Your task to perform on an android device: empty trash in the gmail app Image 0: 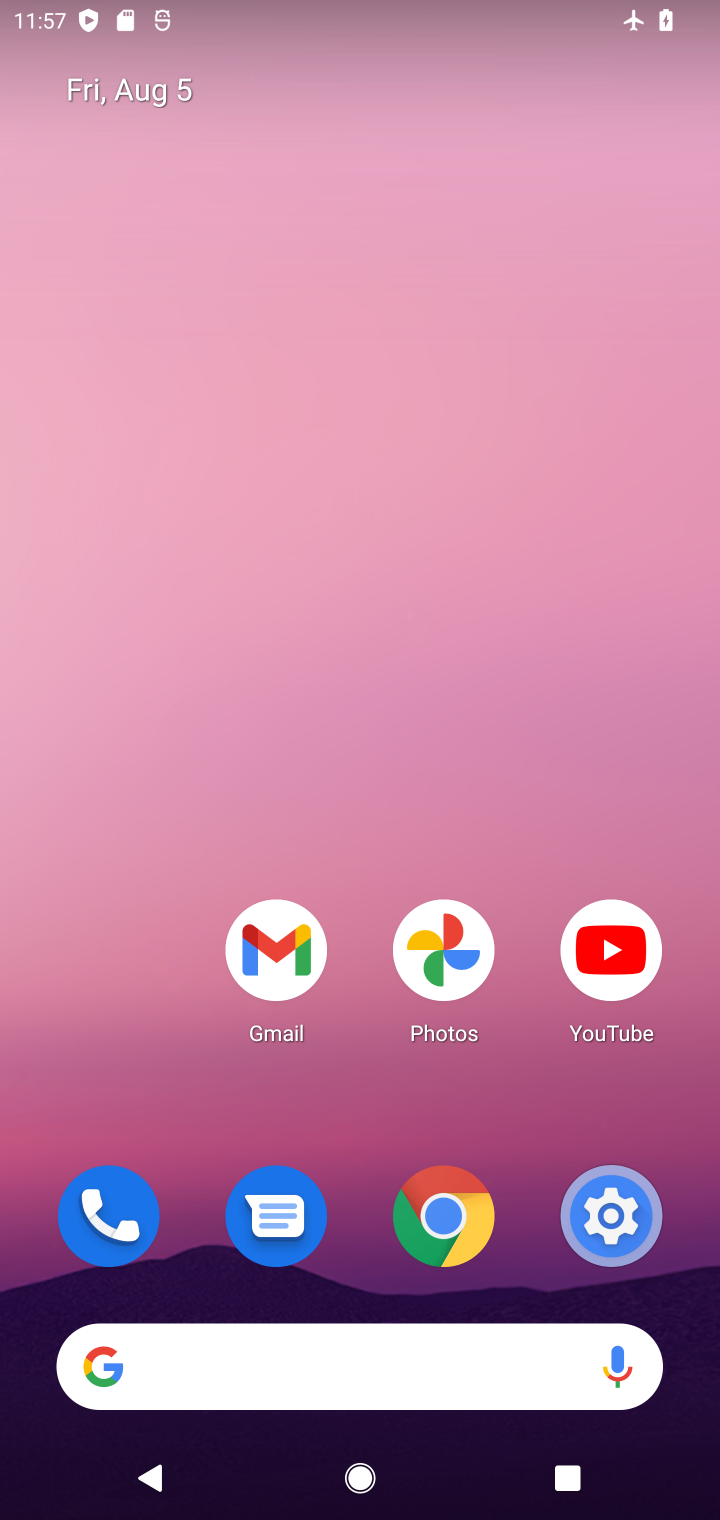
Step 0: drag from (424, 1388) to (436, 37)
Your task to perform on an android device: empty trash in the gmail app Image 1: 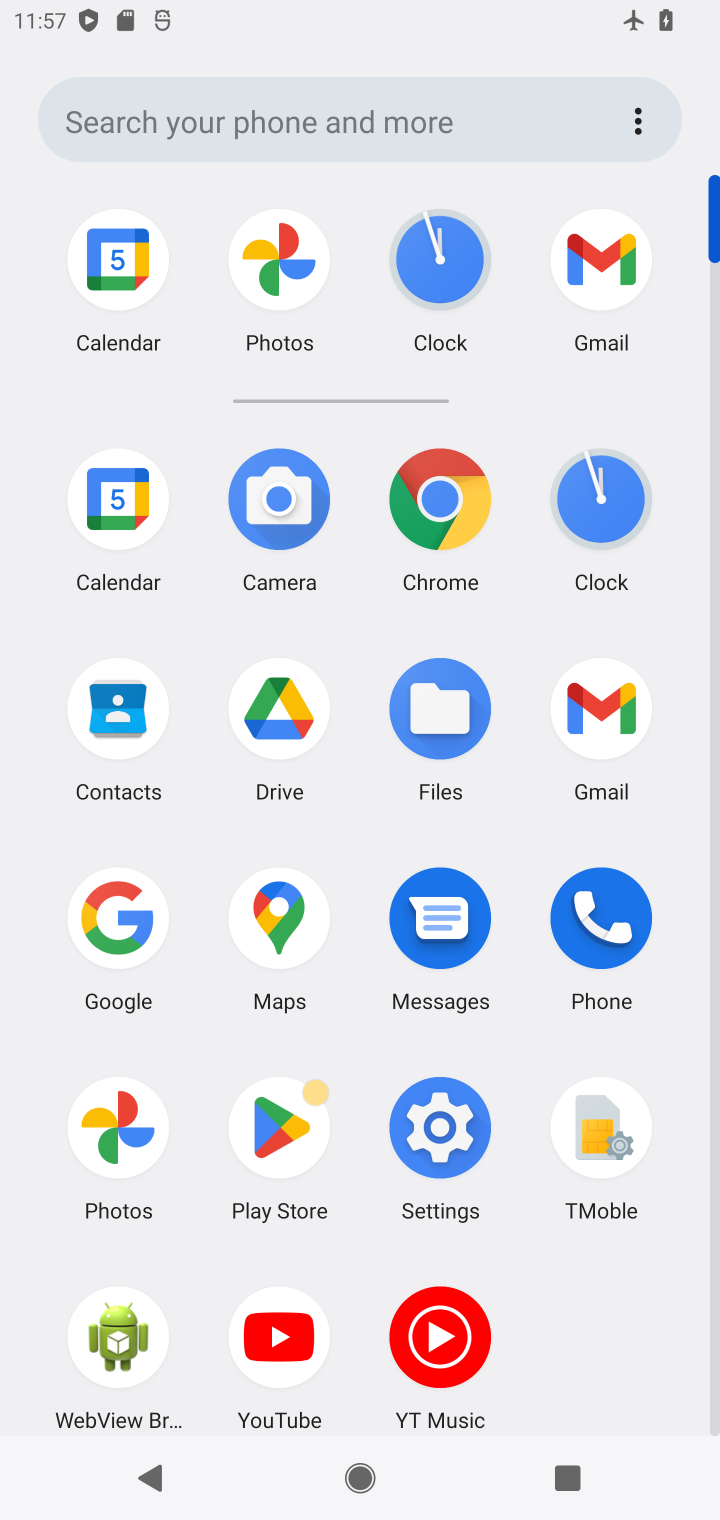
Step 1: click (605, 724)
Your task to perform on an android device: empty trash in the gmail app Image 2: 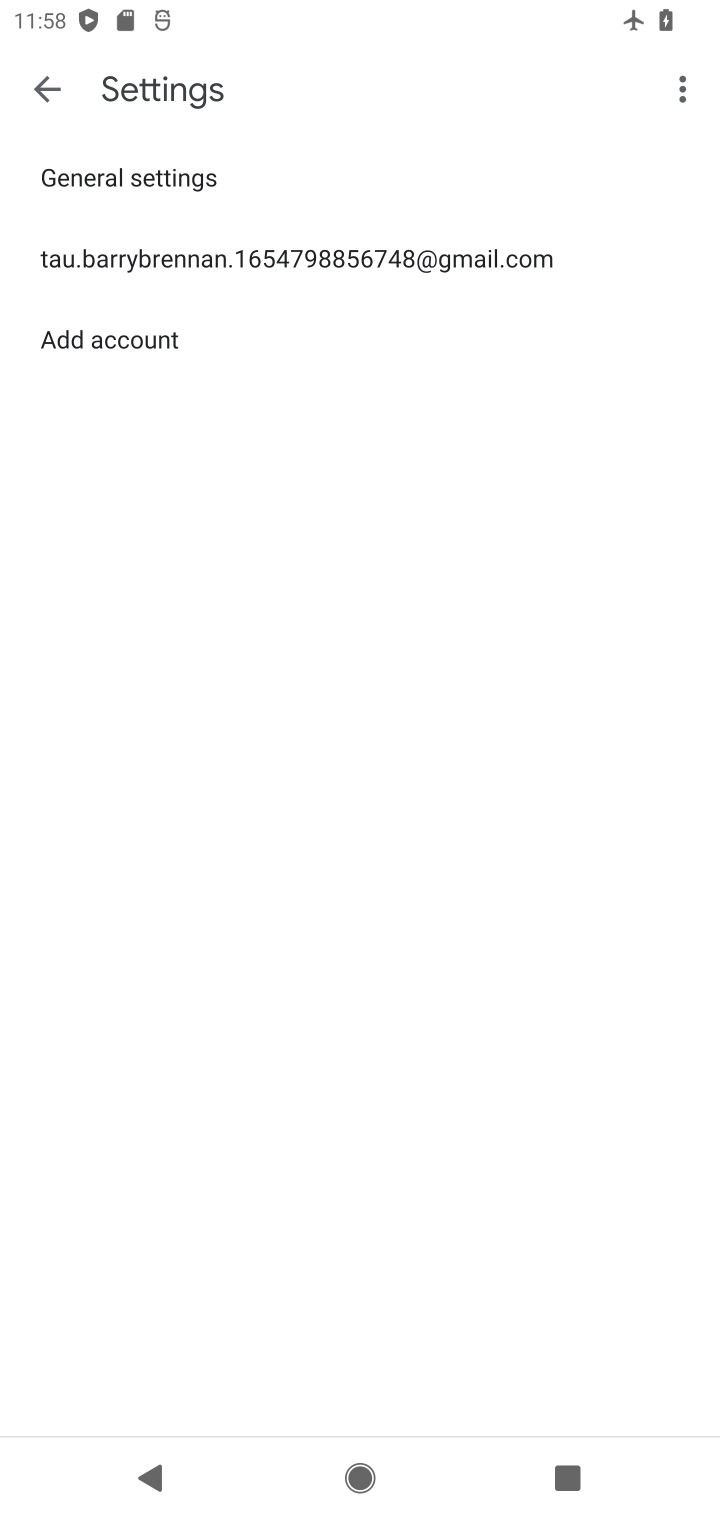
Step 2: press back button
Your task to perform on an android device: empty trash in the gmail app Image 3: 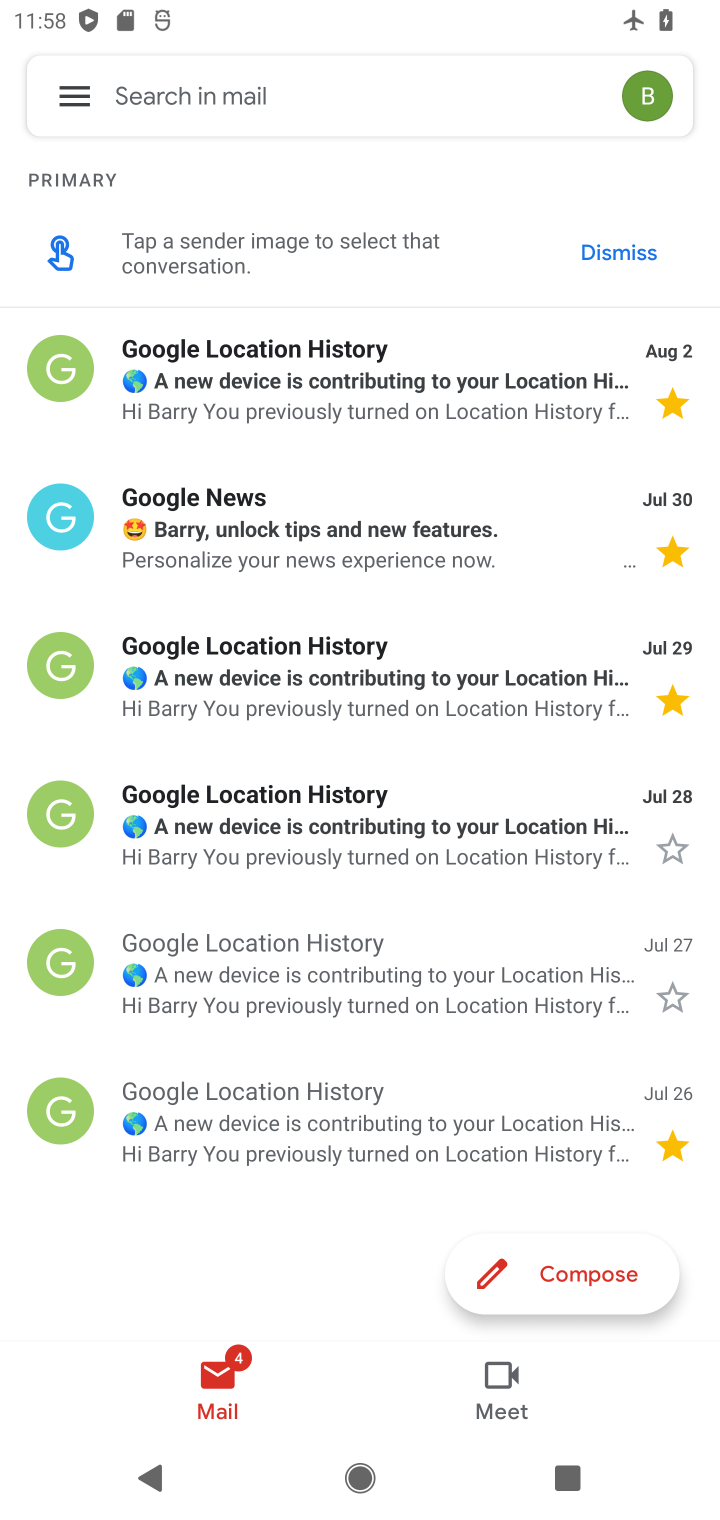
Step 3: click (77, 91)
Your task to perform on an android device: empty trash in the gmail app Image 4: 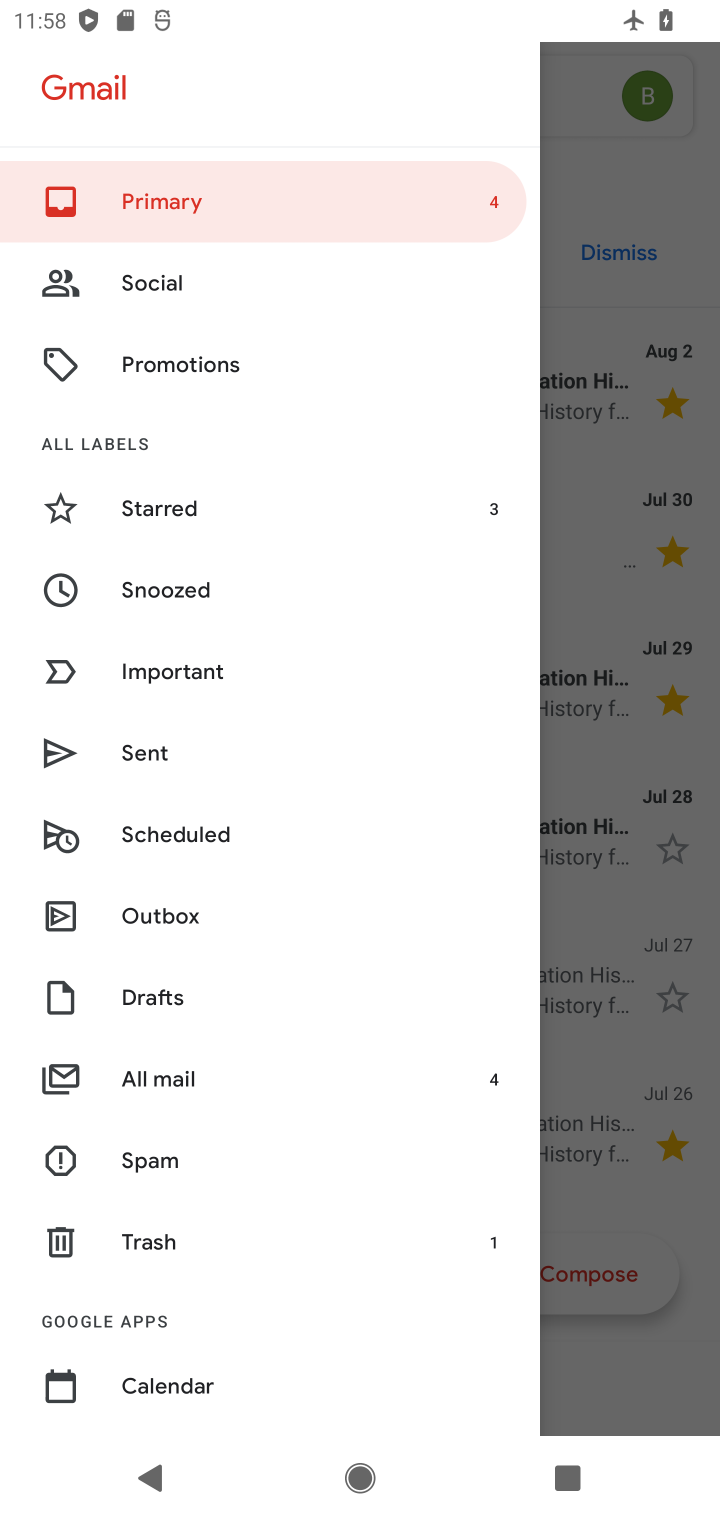
Step 4: click (168, 1227)
Your task to perform on an android device: empty trash in the gmail app Image 5: 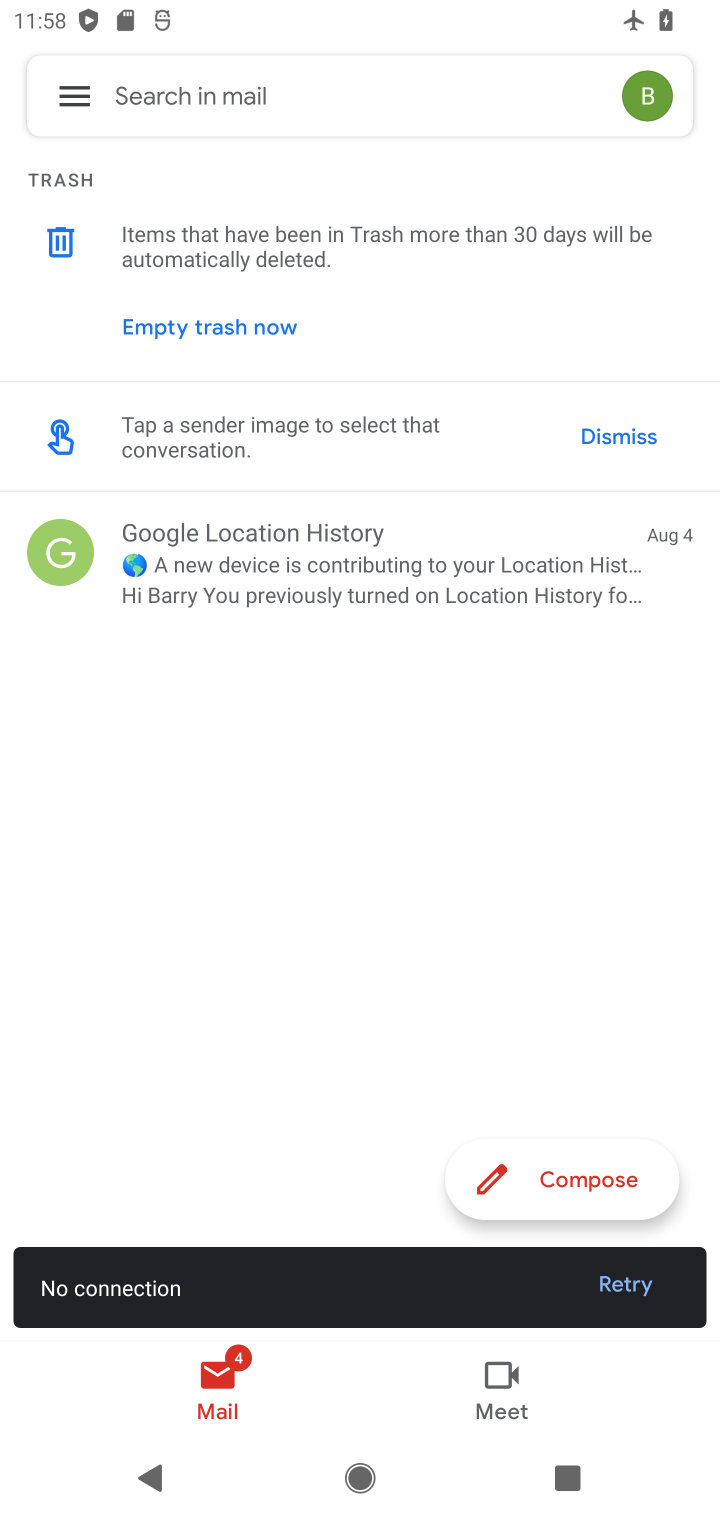
Step 5: click (260, 312)
Your task to perform on an android device: empty trash in the gmail app Image 6: 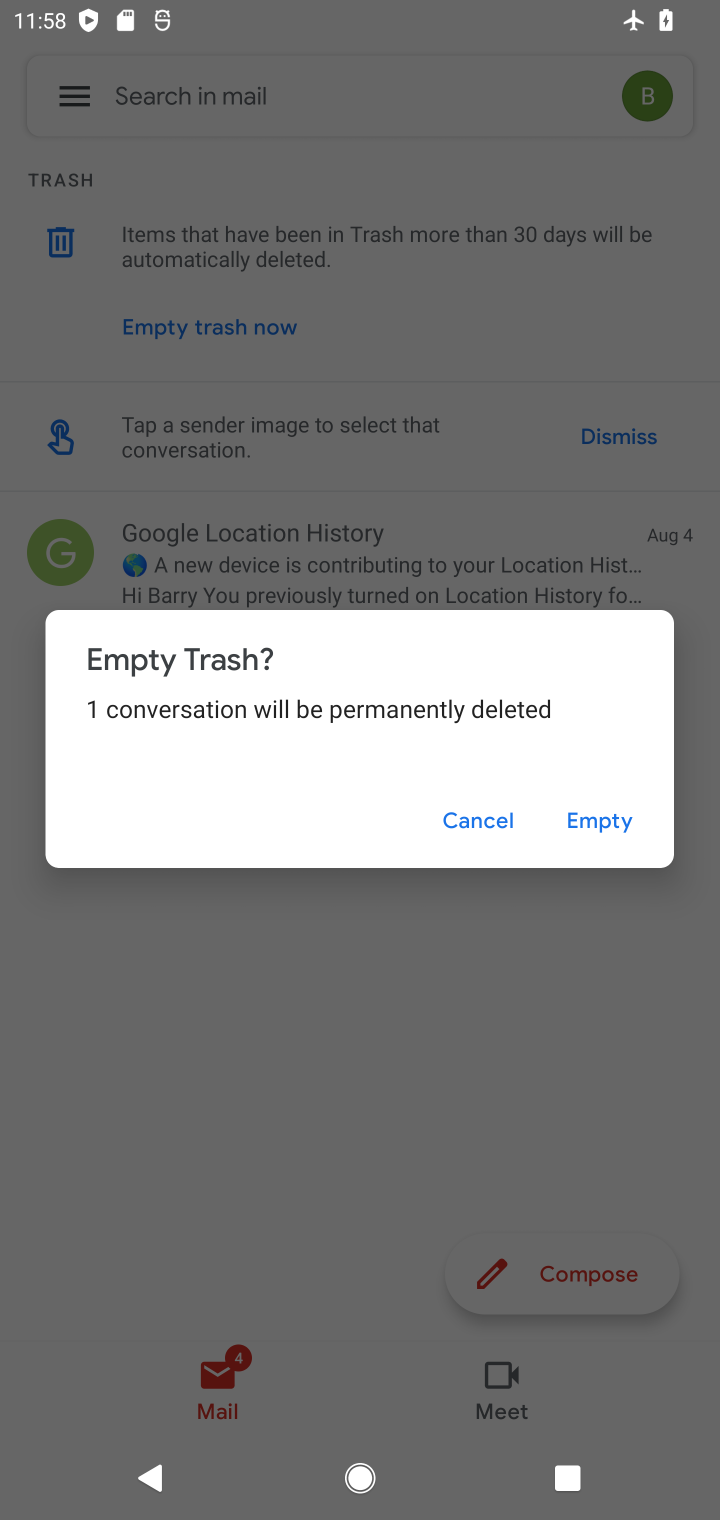
Step 6: click (593, 811)
Your task to perform on an android device: empty trash in the gmail app Image 7: 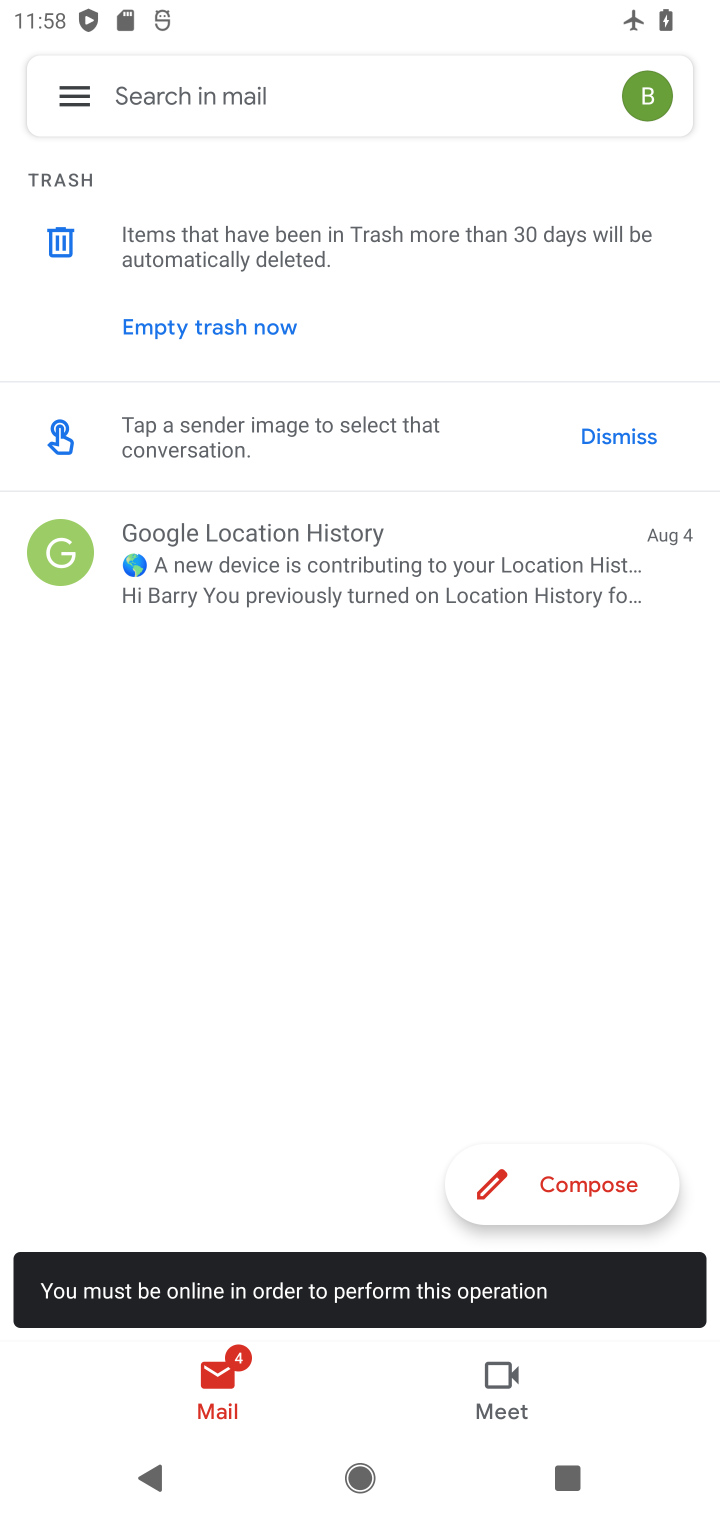
Step 7: task complete